Your task to perform on an android device: How much does a 3 bedroom apartment rent for in Austin? Image 0: 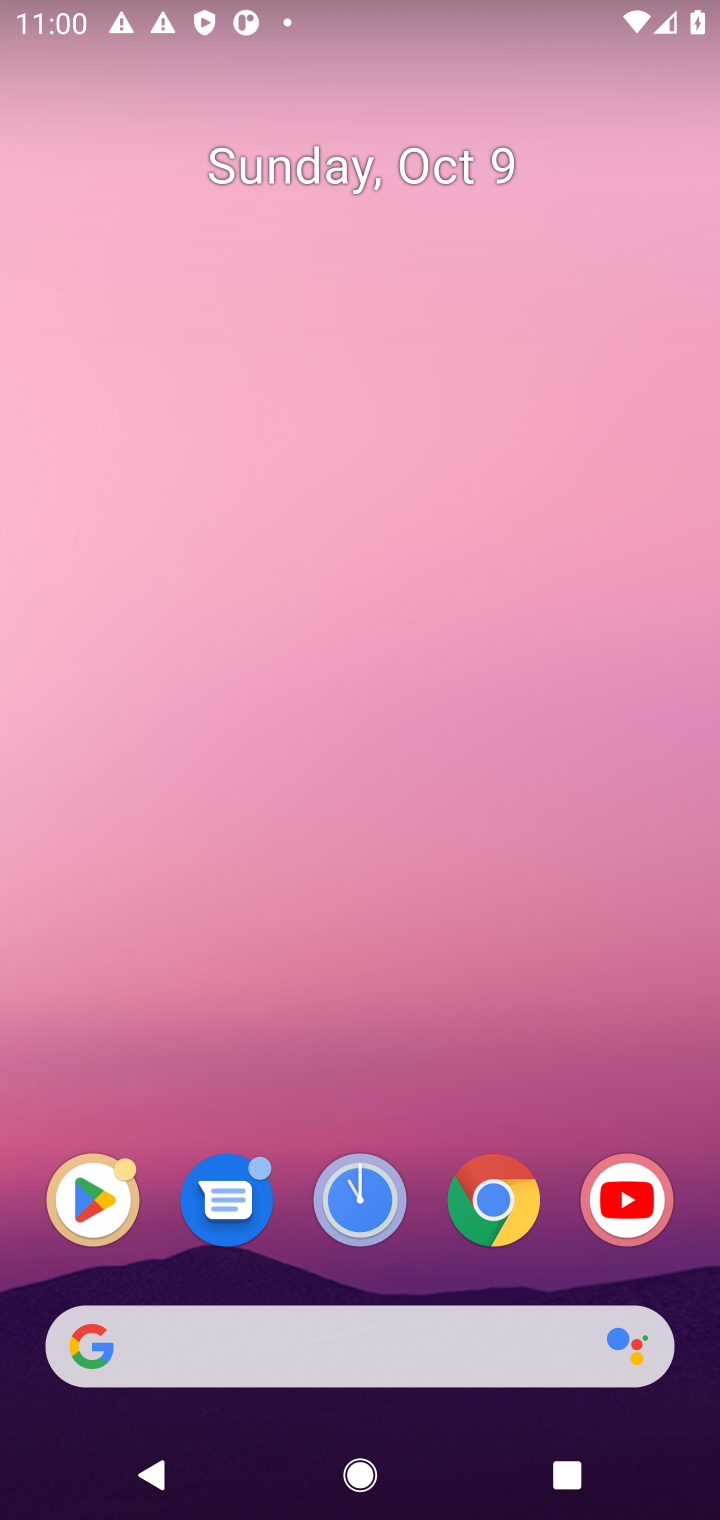
Step 0: click (504, 1212)
Your task to perform on an android device: How much does a 3 bedroom apartment rent for in Austin? Image 1: 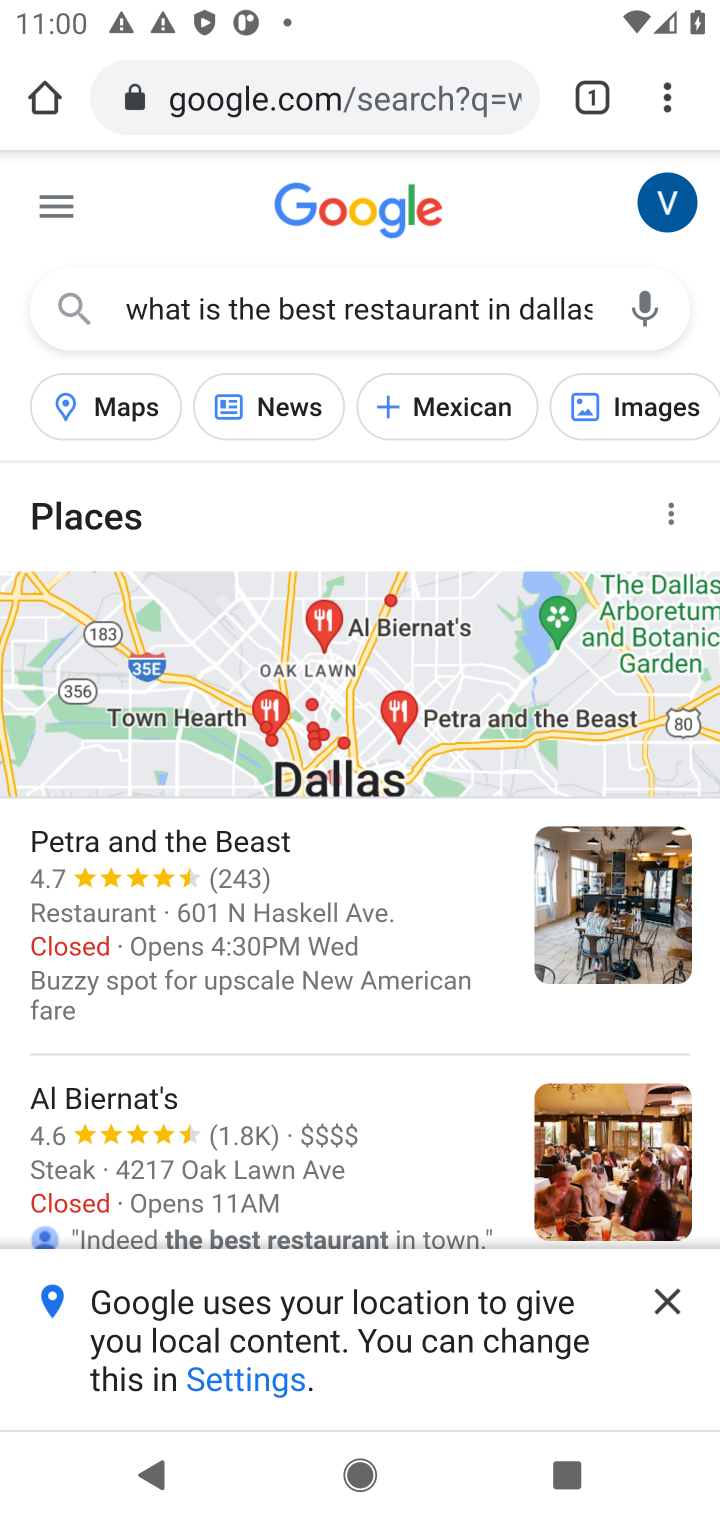
Step 1: click (323, 101)
Your task to perform on an android device: How much does a 3 bedroom apartment rent for in Austin? Image 2: 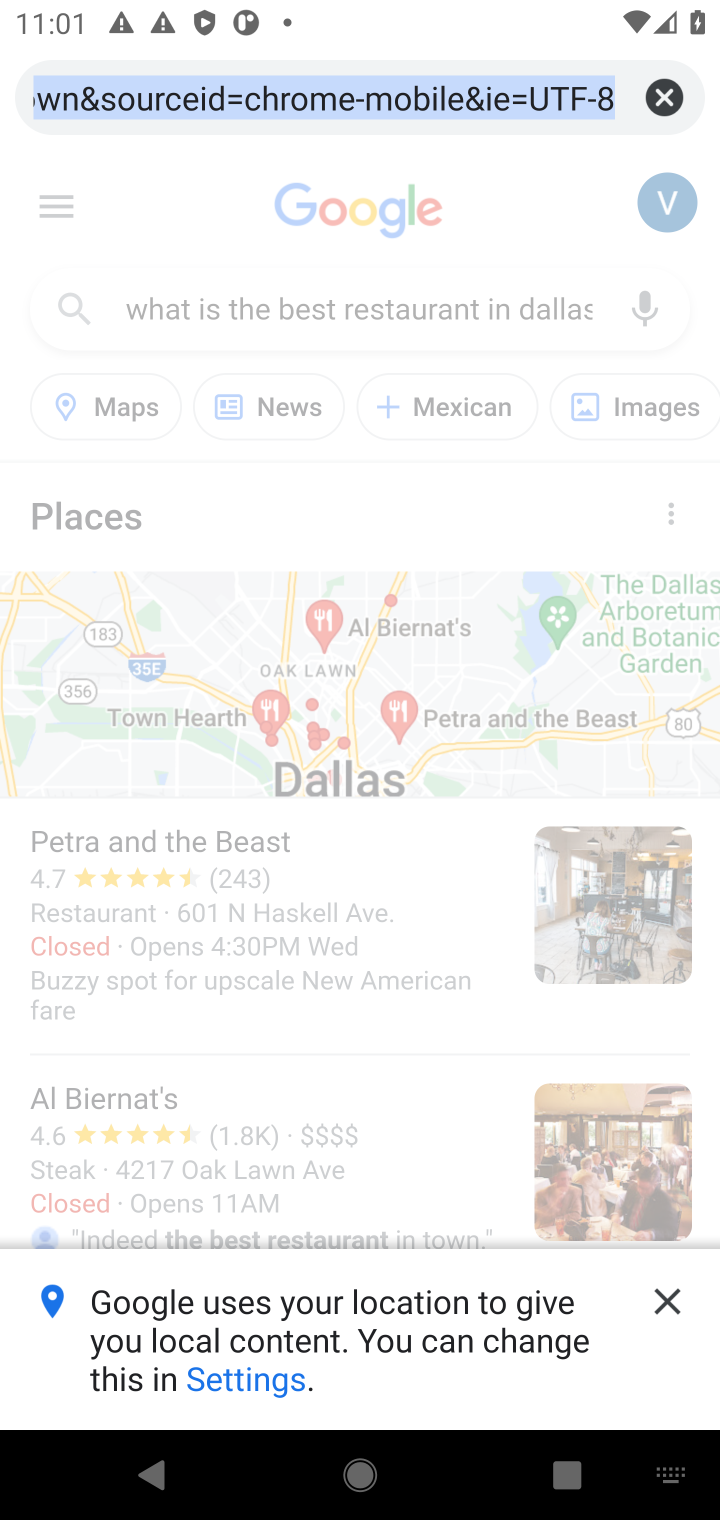
Step 2: type "How much does a 3 bedroom apartment rent for in Austin?"
Your task to perform on an android device: How much does a 3 bedroom apartment rent for in Austin? Image 3: 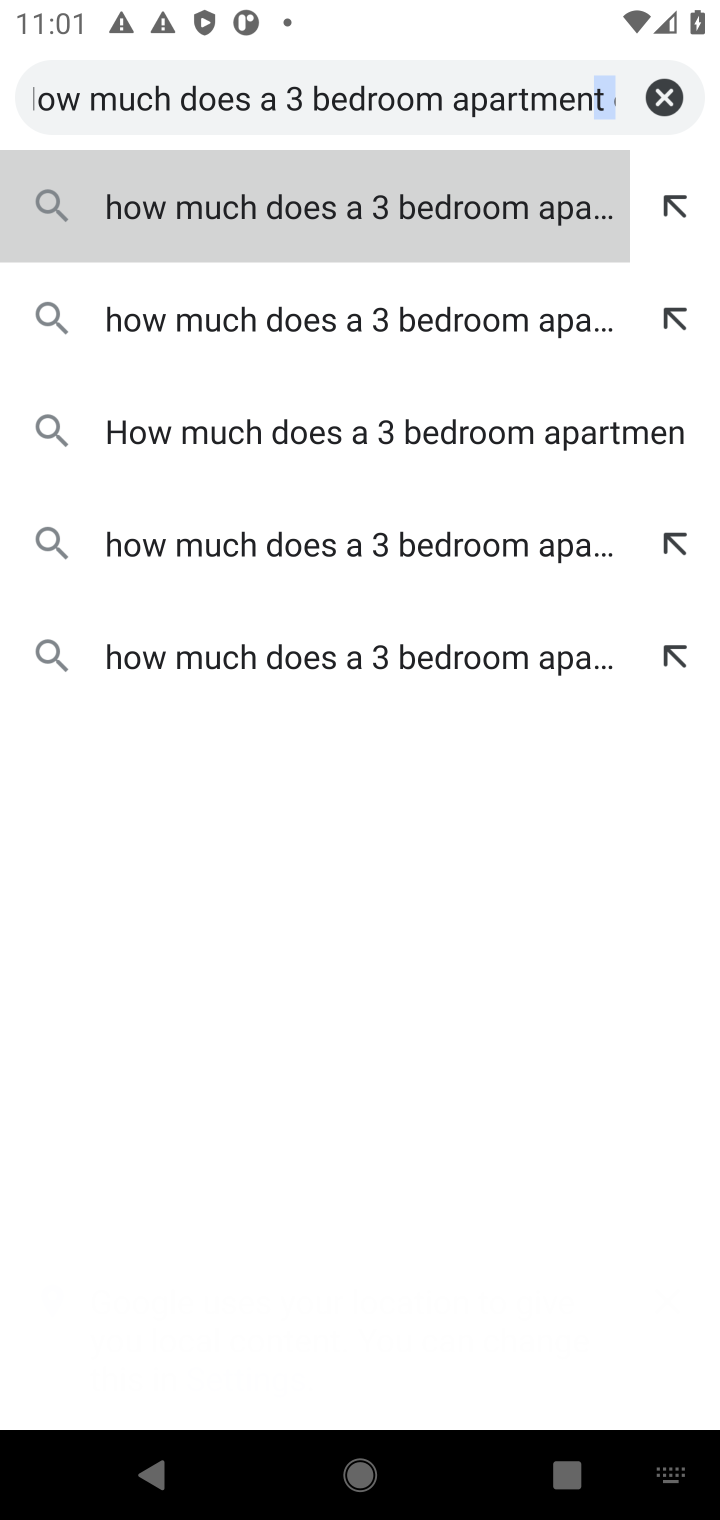
Step 3: click (320, 221)
Your task to perform on an android device: How much does a 3 bedroom apartment rent for in Austin? Image 4: 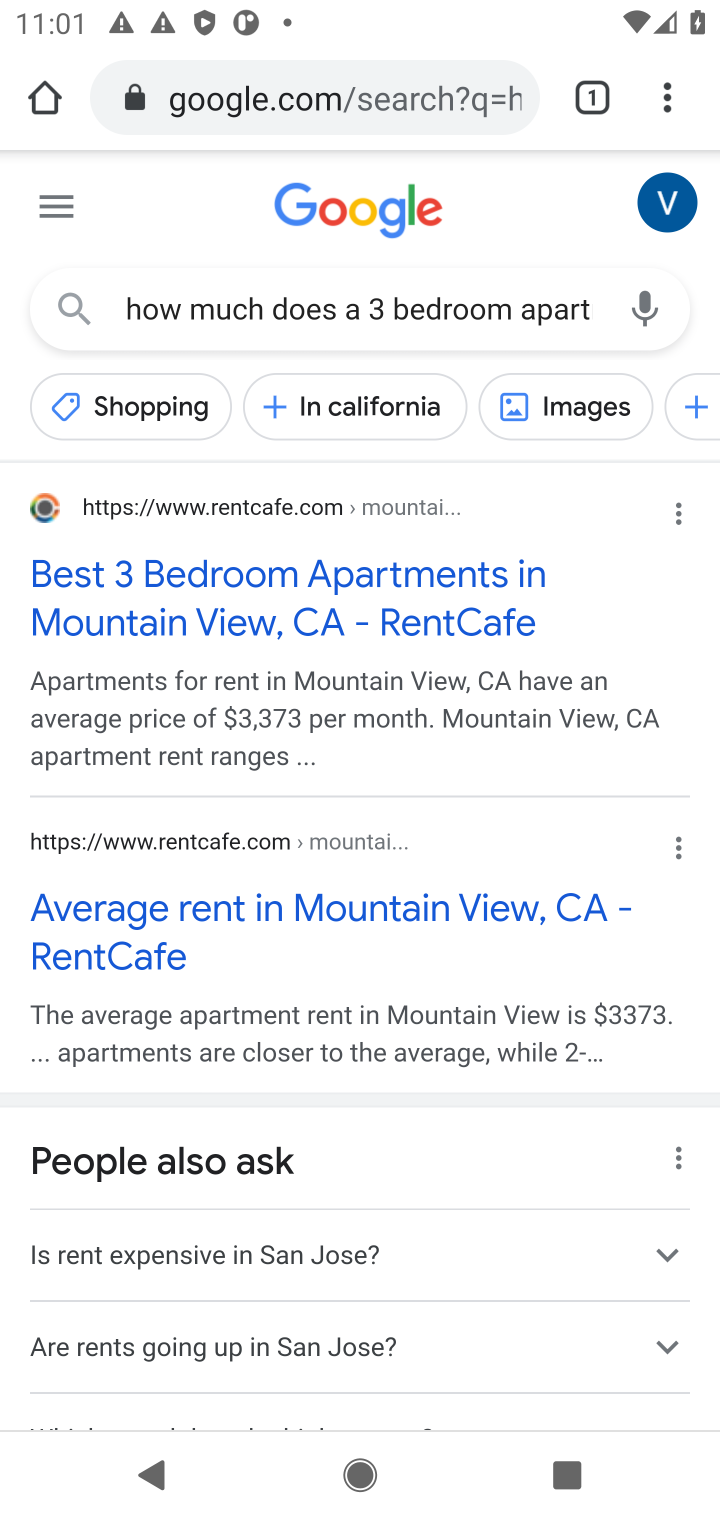
Step 4: click (379, 587)
Your task to perform on an android device: How much does a 3 bedroom apartment rent for in Austin? Image 5: 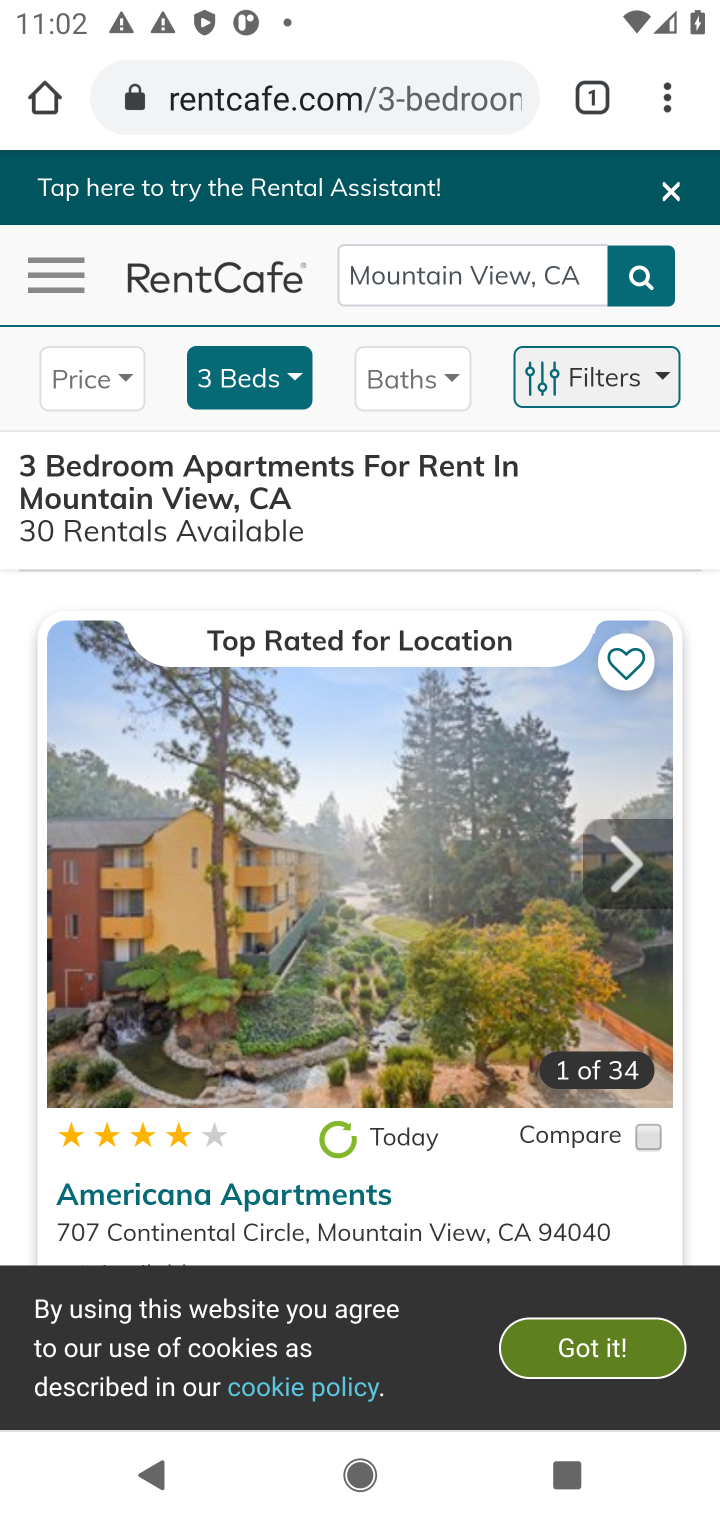
Step 5: task complete